Your task to perform on an android device: Go to CNN.com Image 0: 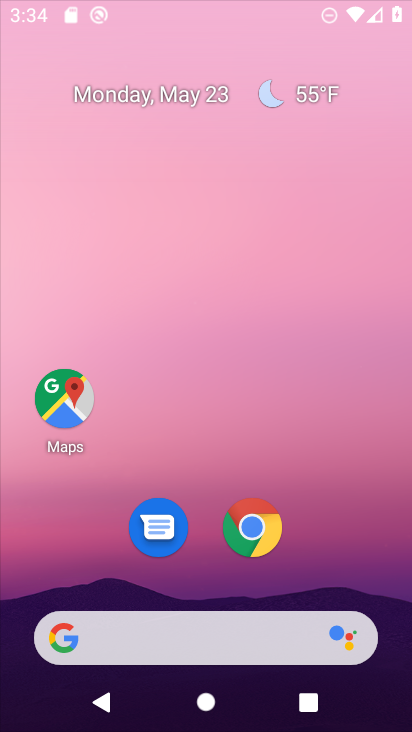
Step 0: press home button
Your task to perform on an android device: Go to CNN.com Image 1: 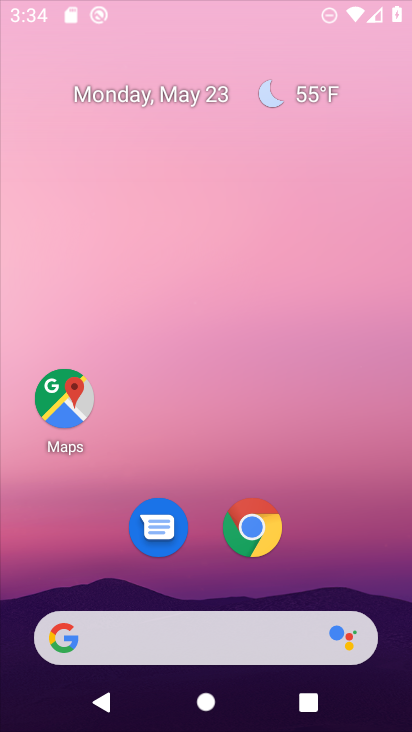
Step 1: click (234, 96)
Your task to perform on an android device: Go to CNN.com Image 2: 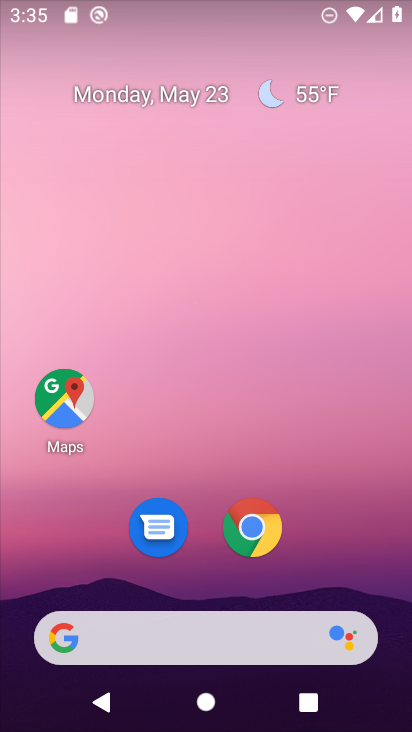
Step 2: click (252, 522)
Your task to perform on an android device: Go to CNN.com Image 3: 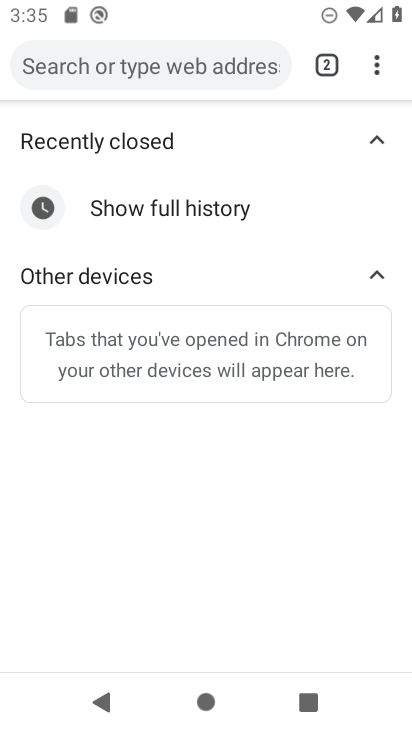
Step 3: click (319, 63)
Your task to perform on an android device: Go to CNN.com Image 4: 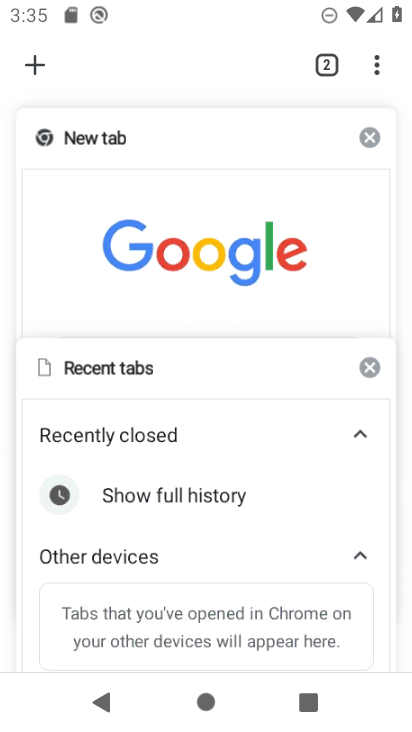
Step 4: click (309, 239)
Your task to perform on an android device: Go to CNN.com Image 5: 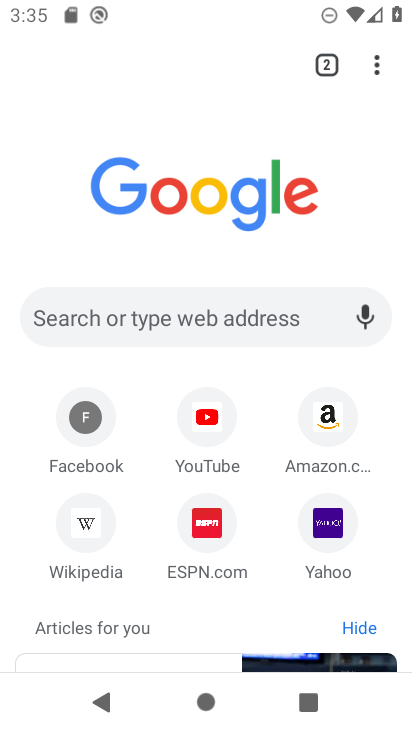
Step 5: click (147, 321)
Your task to perform on an android device: Go to CNN.com Image 6: 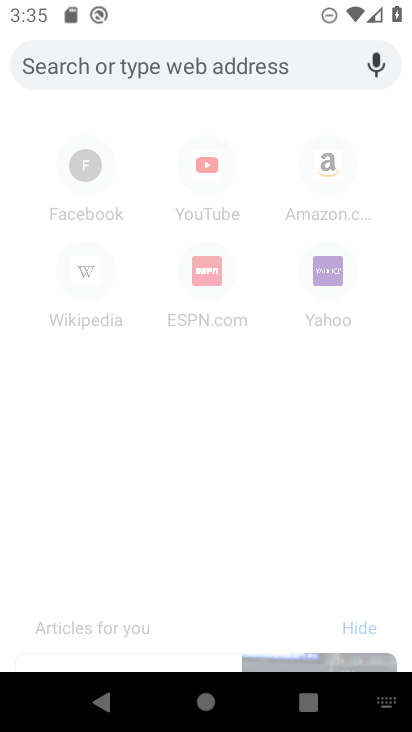
Step 6: type "cnn.com"
Your task to perform on an android device: Go to CNN.com Image 7: 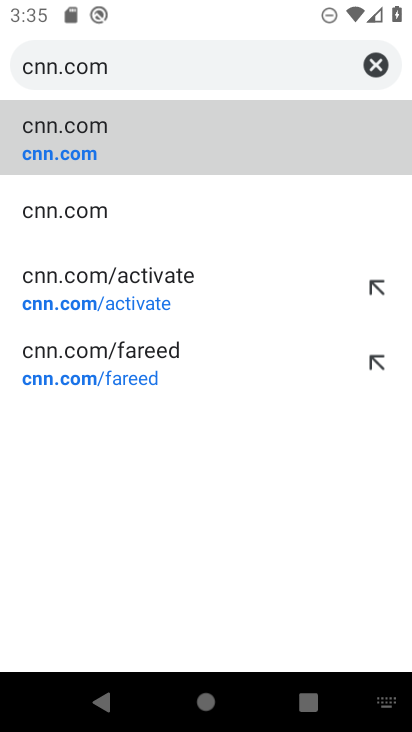
Step 7: click (120, 138)
Your task to perform on an android device: Go to CNN.com Image 8: 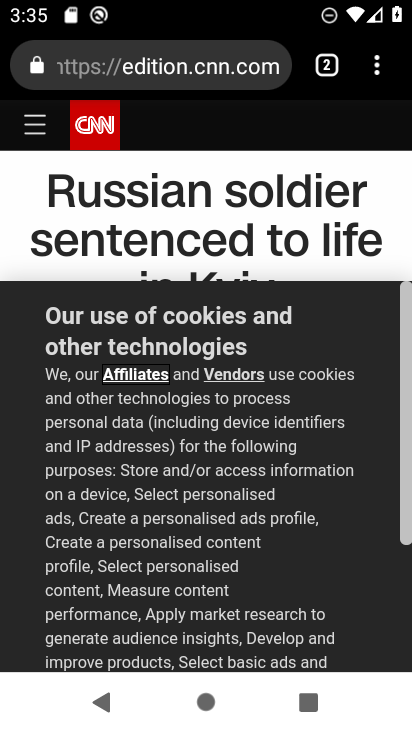
Step 8: drag from (211, 612) to (234, 85)
Your task to perform on an android device: Go to CNN.com Image 9: 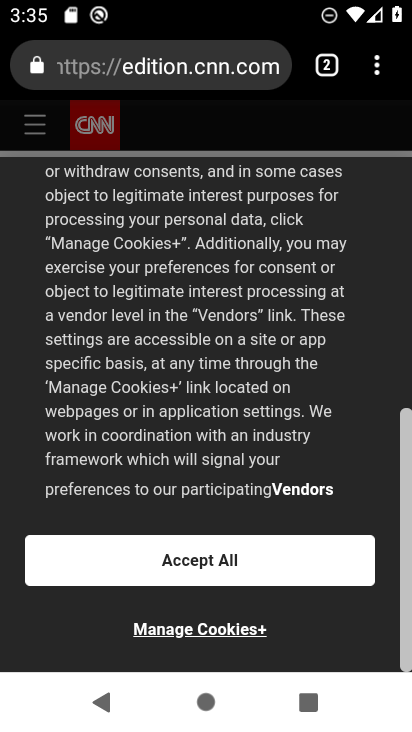
Step 9: click (212, 558)
Your task to perform on an android device: Go to CNN.com Image 10: 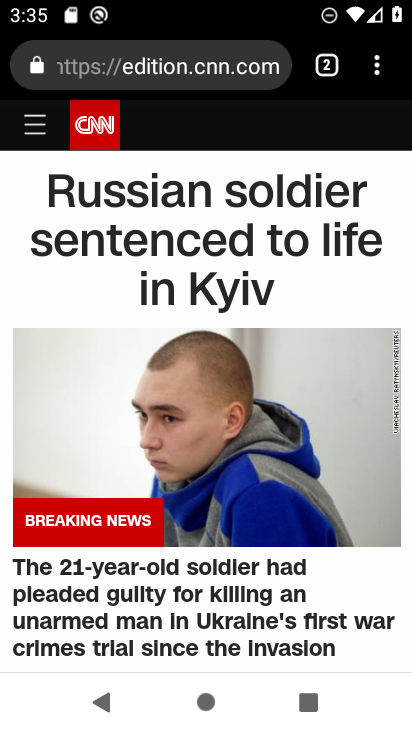
Step 10: task complete